Your task to perform on an android device: turn on showing notifications on the lock screen Image 0: 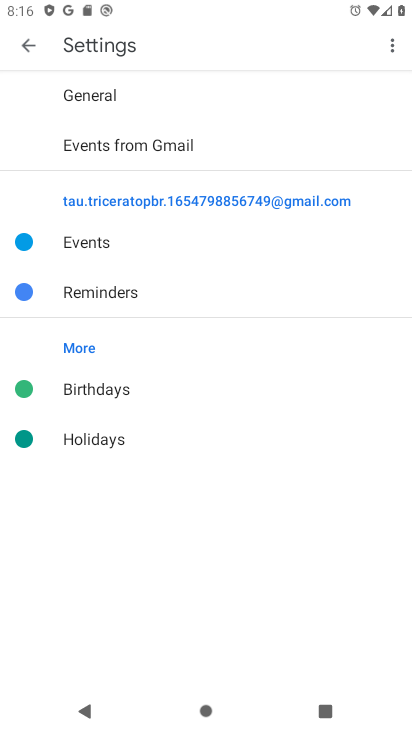
Step 0: press home button
Your task to perform on an android device: turn on showing notifications on the lock screen Image 1: 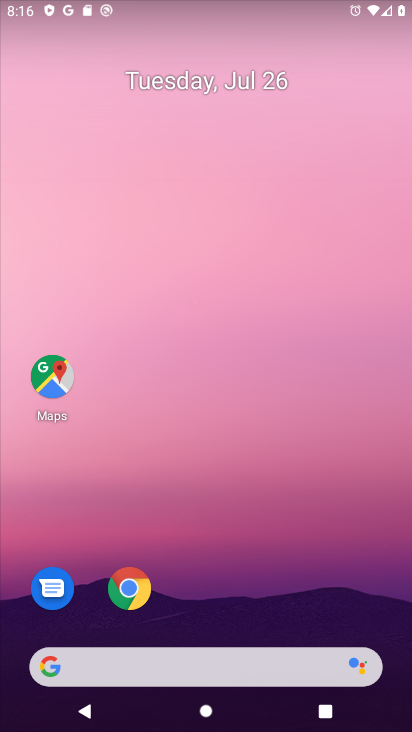
Step 1: drag from (196, 628) to (205, 257)
Your task to perform on an android device: turn on showing notifications on the lock screen Image 2: 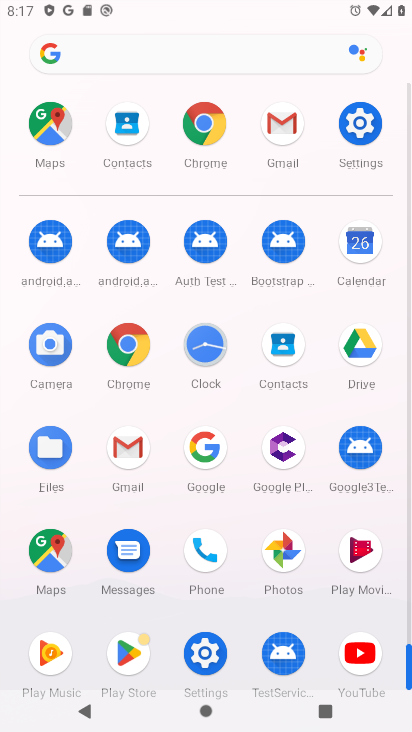
Step 2: click (44, 121)
Your task to perform on an android device: turn on showing notifications on the lock screen Image 3: 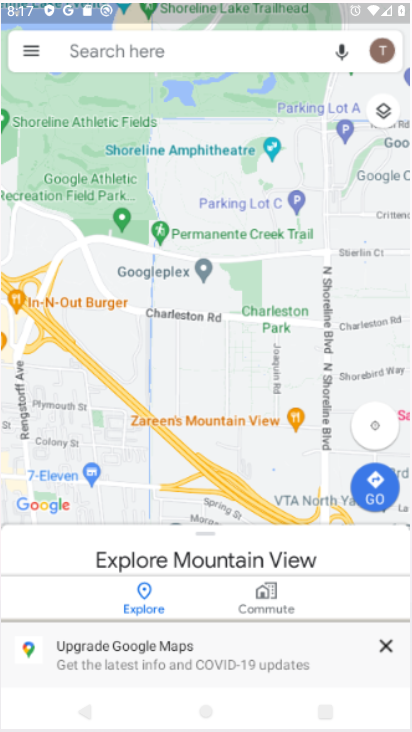
Step 3: click (354, 159)
Your task to perform on an android device: turn on showing notifications on the lock screen Image 4: 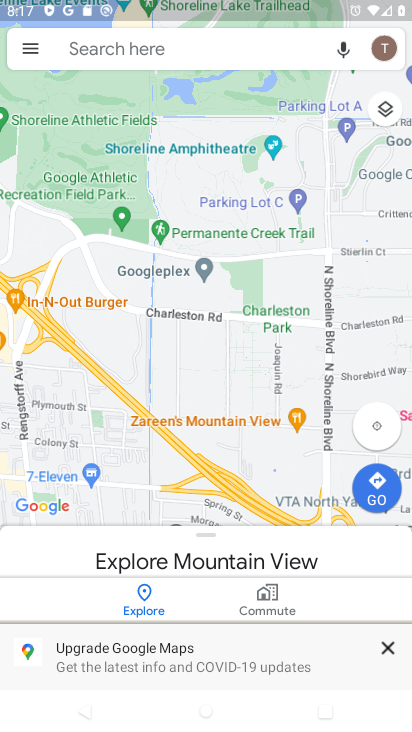
Step 4: press home button
Your task to perform on an android device: turn on showing notifications on the lock screen Image 5: 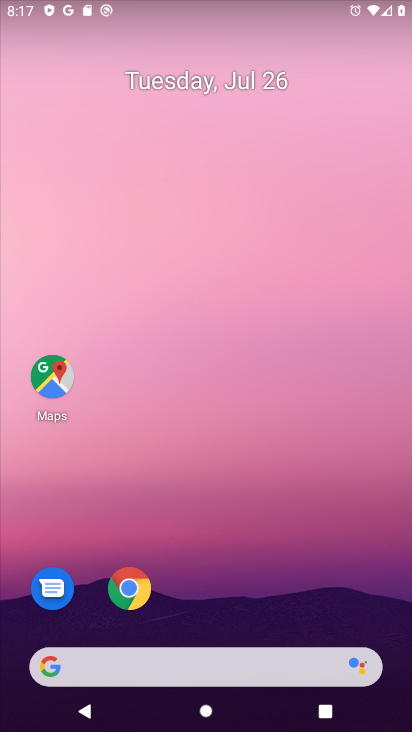
Step 5: drag from (157, 601) to (238, 123)
Your task to perform on an android device: turn on showing notifications on the lock screen Image 6: 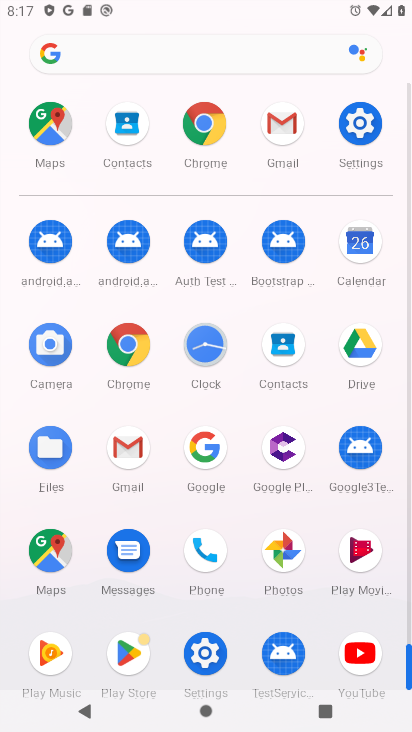
Step 6: click (357, 134)
Your task to perform on an android device: turn on showing notifications on the lock screen Image 7: 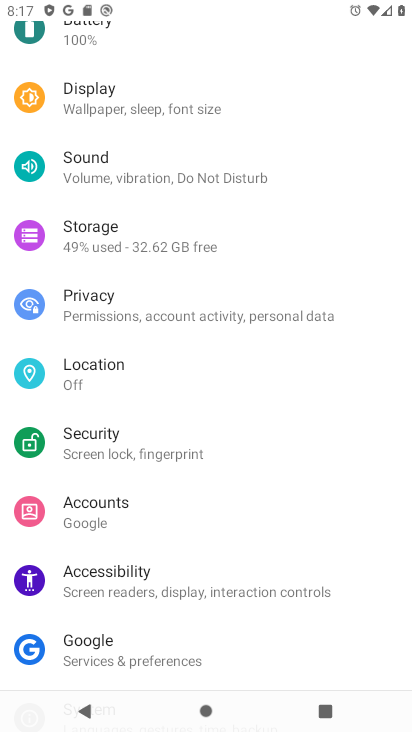
Step 7: drag from (197, 188) to (163, 545)
Your task to perform on an android device: turn on showing notifications on the lock screen Image 8: 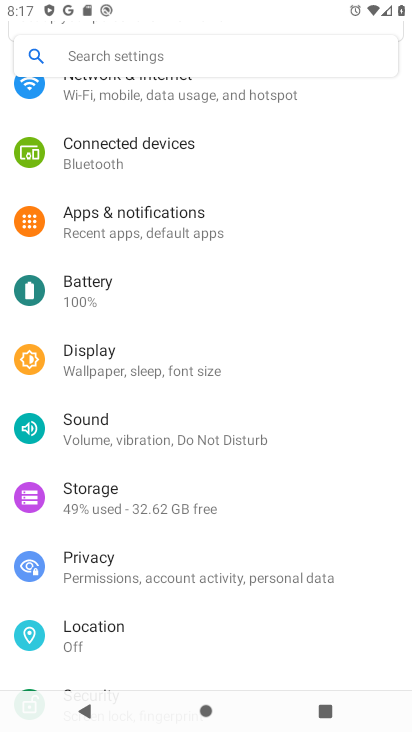
Step 8: click (157, 230)
Your task to perform on an android device: turn on showing notifications on the lock screen Image 9: 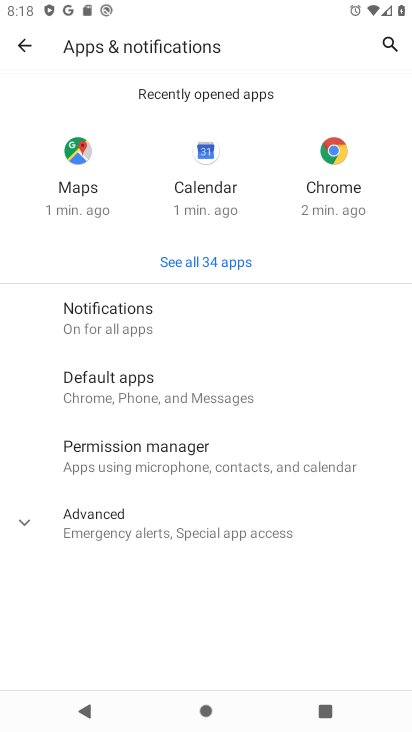
Step 9: click (167, 311)
Your task to perform on an android device: turn on showing notifications on the lock screen Image 10: 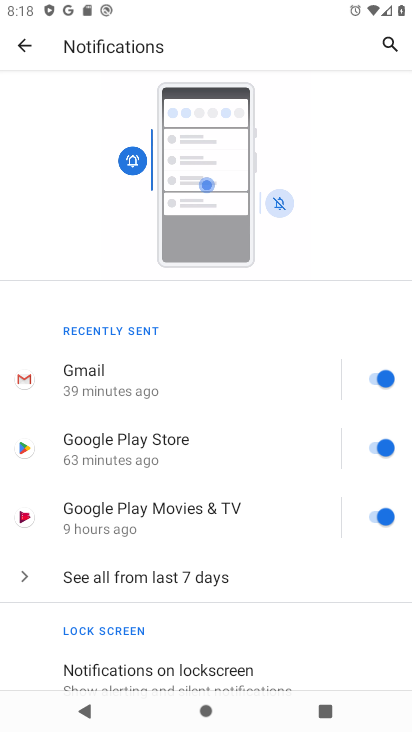
Step 10: drag from (115, 561) to (162, 296)
Your task to perform on an android device: turn on showing notifications on the lock screen Image 11: 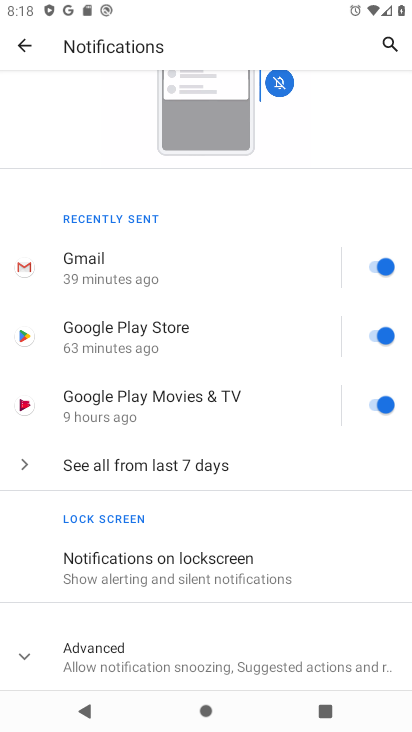
Step 11: click (230, 571)
Your task to perform on an android device: turn on showing notifications on the lock screen Image 12: 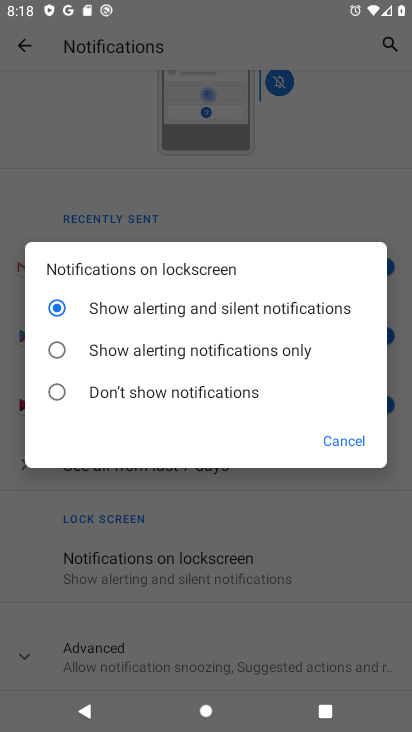
Step 12: task complete